Your task to perform on an android device: Show the shopping cart on target.com. Add "razer nari" to the cart on target.com, then select checkout. Image 0: 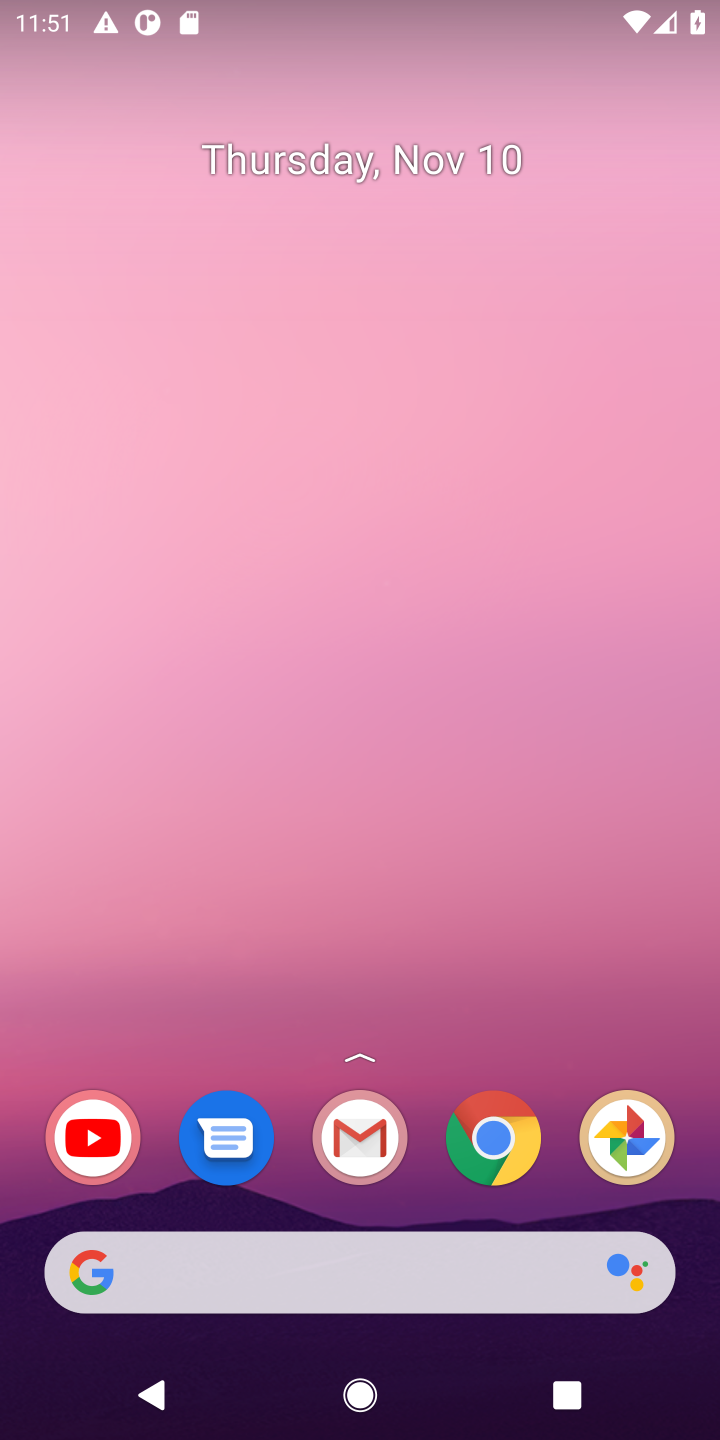
Step 0: click (476, 1138)
Your task to perform on an android device: Show the shopping cart on target.com. Add "razer nari" to the cart on target.com, then select checkout. Image 1: 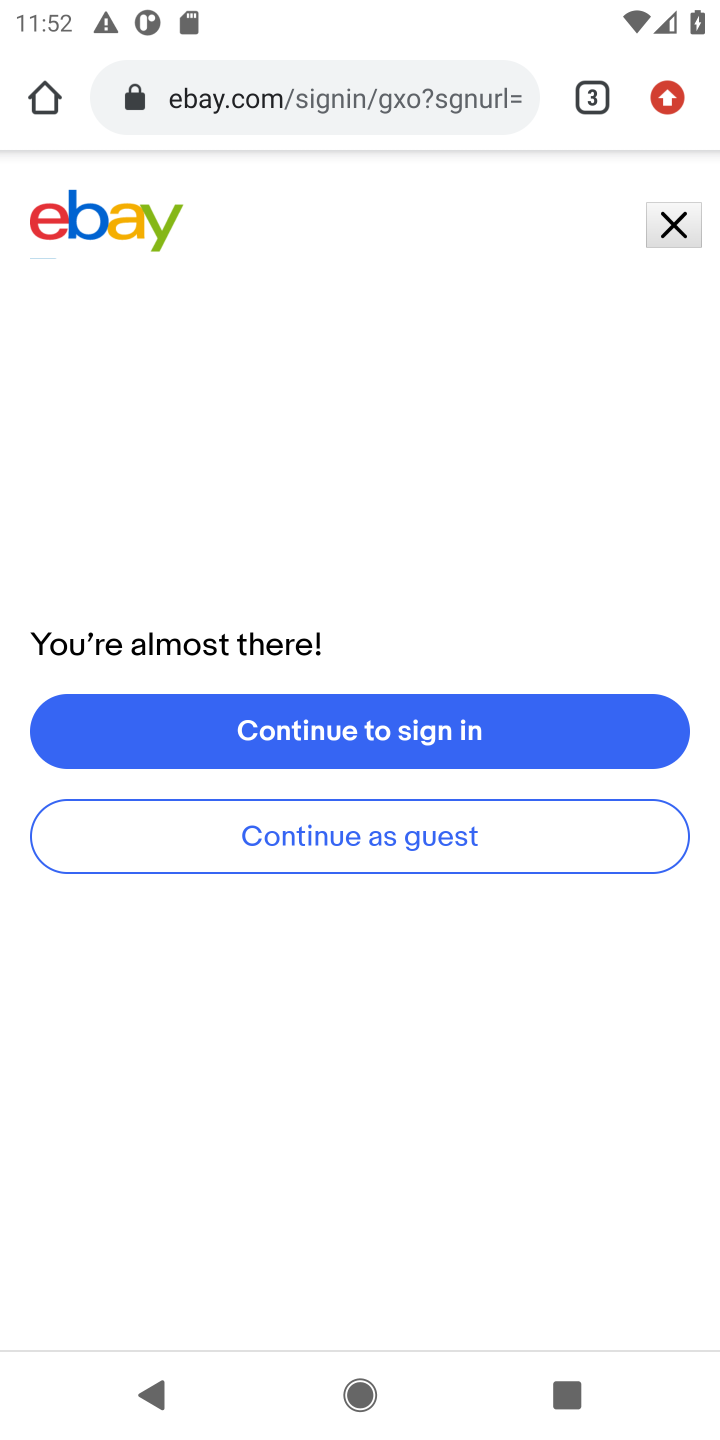
Step 1: click (590, 104)
Your task to perform on an android device: Show the shopping cart on target.com. Add "razer nari" to the cart on target.com, then select checkout. Image 2: 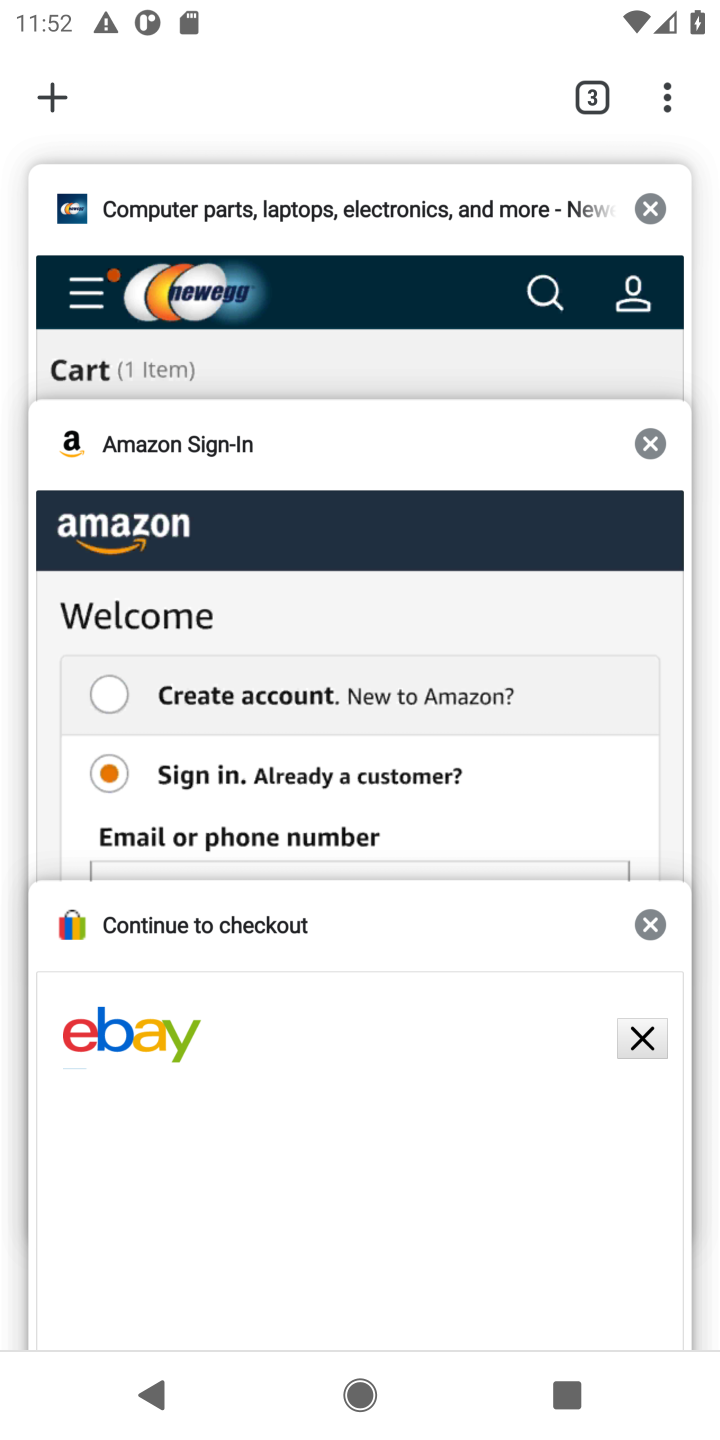
Step 2: click (58, 74)
Your task to perform on an android device: Show the shopping cart on target.com. Add "razer nari" to the cart on target.com, then select checkout. Image 3: 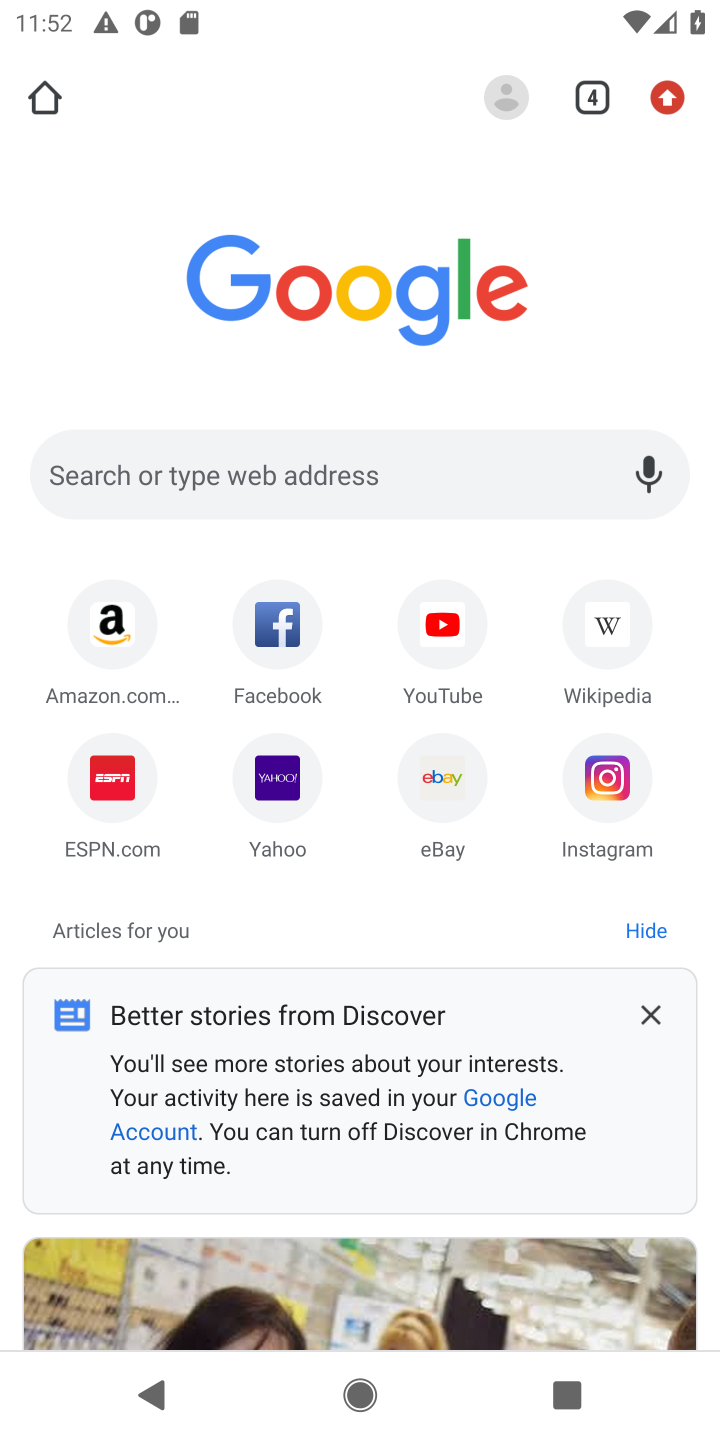
Step 3: click (297, 471)
Your task to perform on an android device: Show the shopping cart on target.com. Add "razer nari" to the cart on target.com, then select checkout. Image 4: 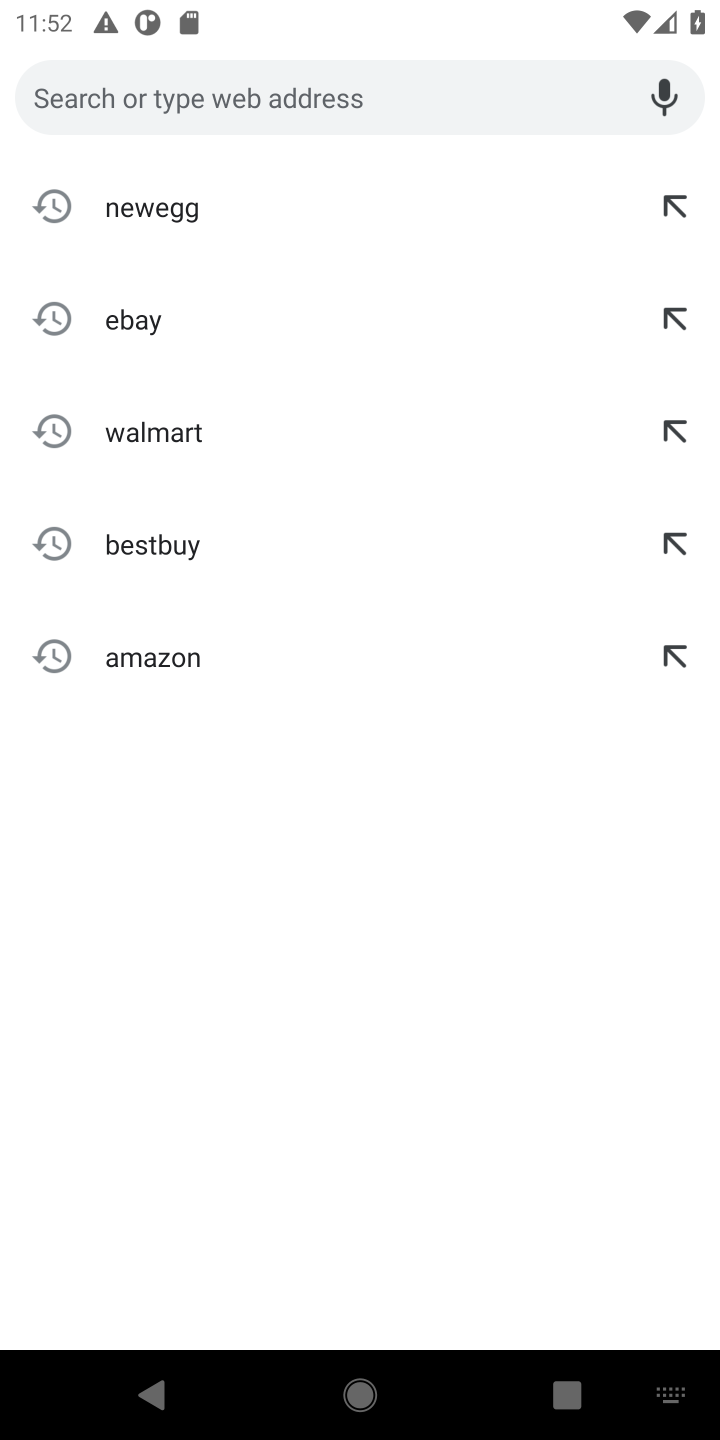
Step 4: type "target"
Your task to perform on an android device: Show the shopping cart on target.com. Add "razer nari" to the cart on target.com, then select checkout. Image 5: 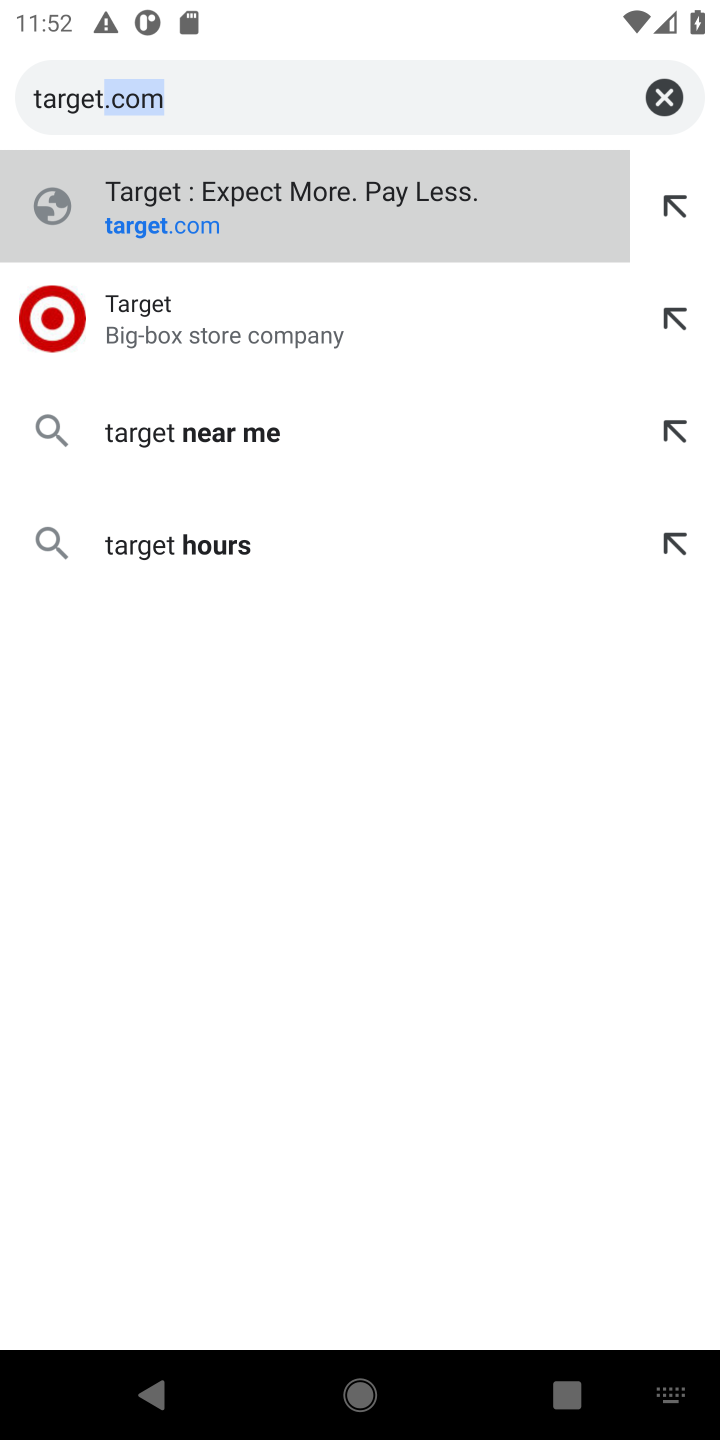
Step 5: click (417, 194)
Your task to perform on an android device: Show the shopping cart on target.com. Add "razer nari" to the cart on target.com, then select checkout. Image 6: 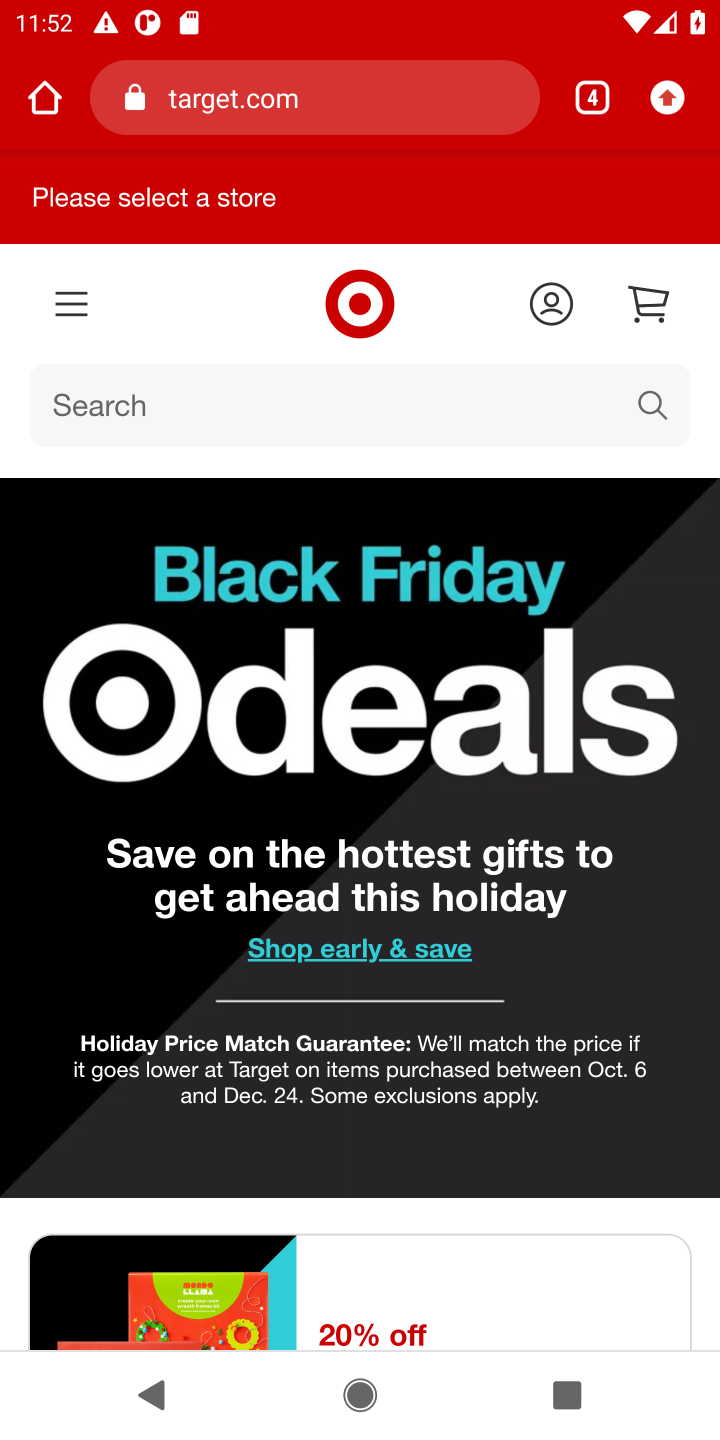
Step 6: click (106, 401)
Your task to perform on an android device: Show the shopping cart on target.com. Add "razer nari" to the cart on target.com, then select checkout. Image 7: 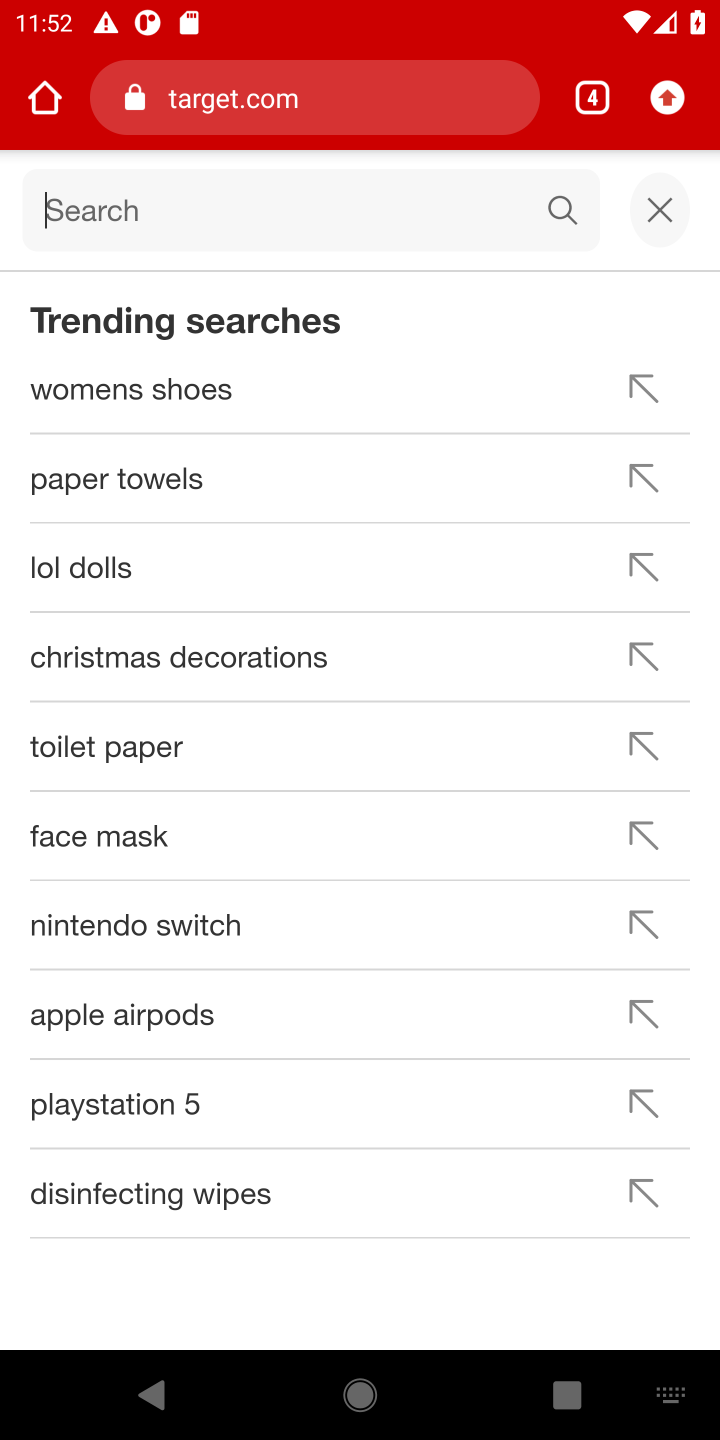
Step 7: type "razer nari"
Your task to perform on an android device: Show the shopping cart on target.com. Add "razer nari" to the cart on target.com, then select checkout. Image 8: 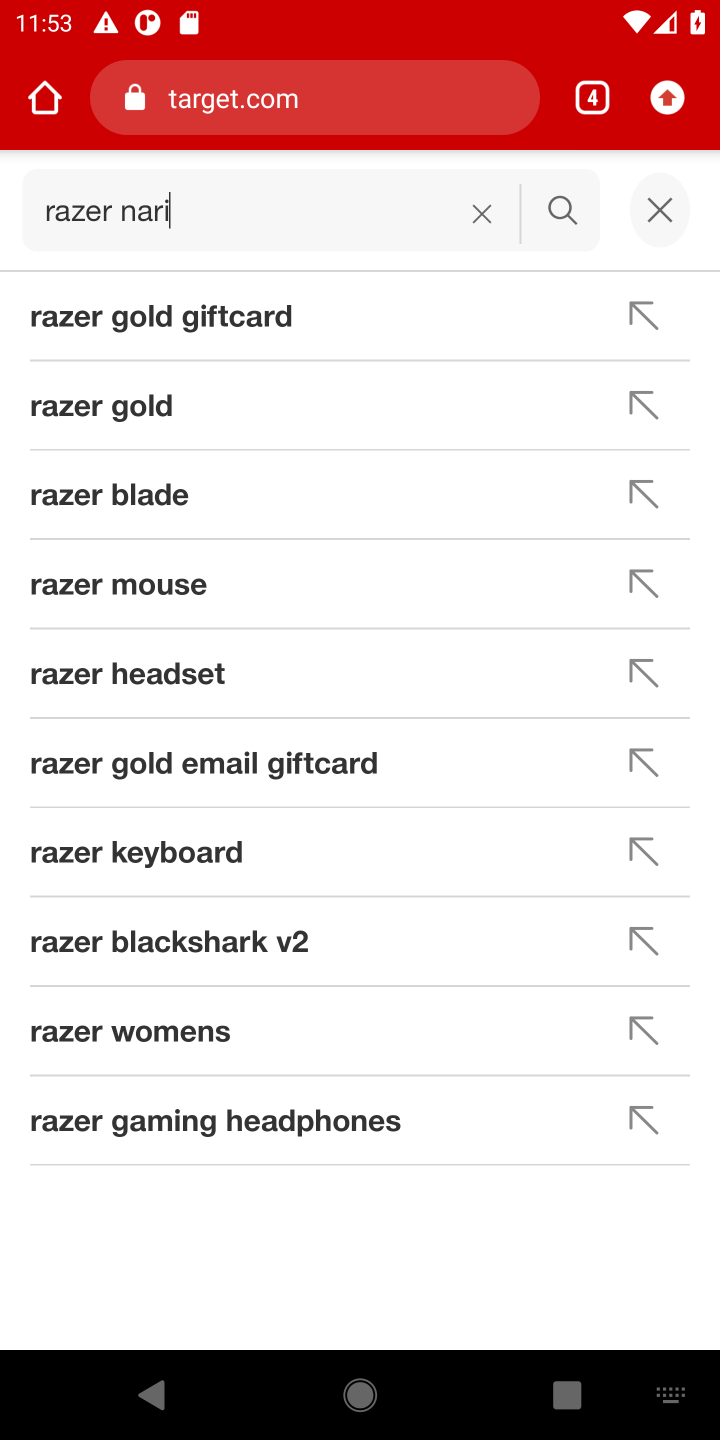
Step 8: click (559, 208)
Your task to perform on an android device: Show the shopping cart on target.com. Add "razer nari" to the cart on target.com, then select checkout. Image 9: 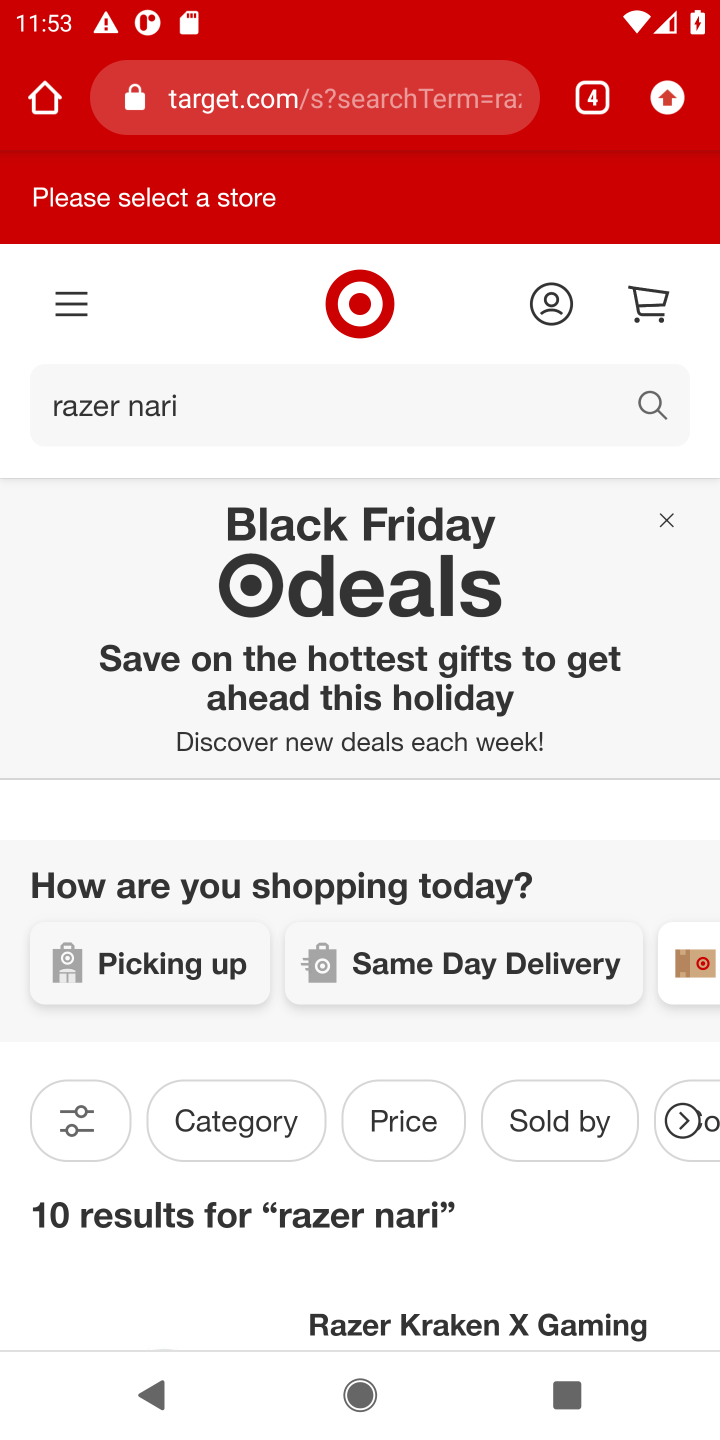
Step 9: task complete